Your task to perform on an android device: Go to eBay Image 0: 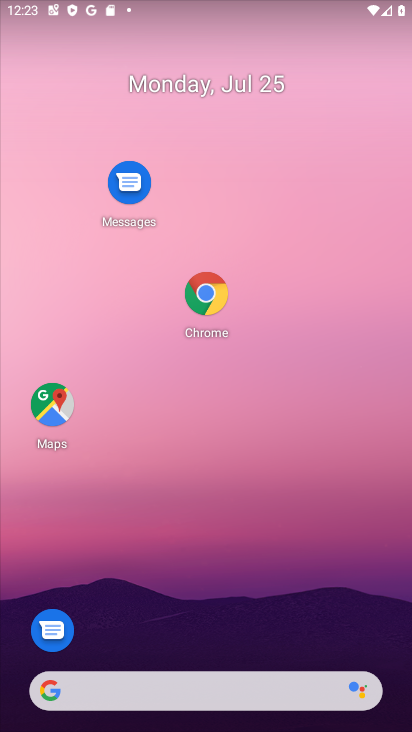
Step 0: press home button
Your task to perform on an android device: Go to eBay Image 1: 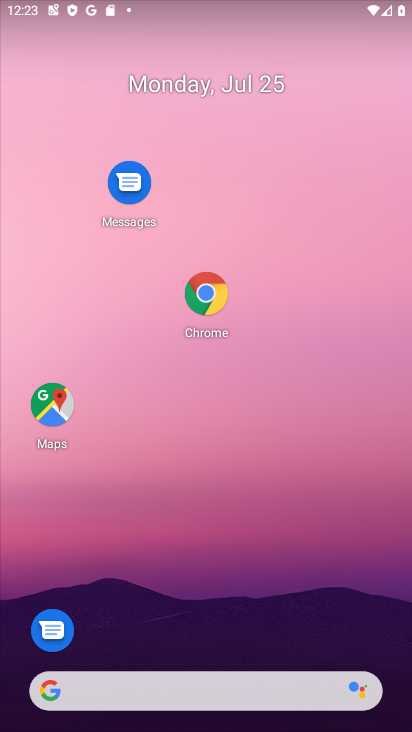
Step 1: drag from (314, 566) to (281, 399)
Your task to perform on an android device: Go to eBay Image 2: 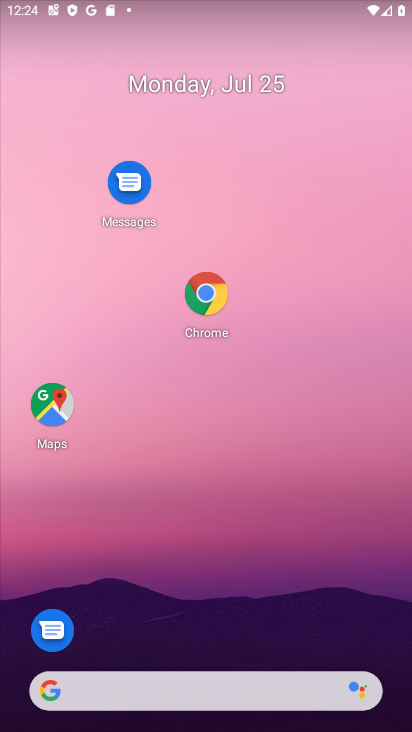
Step 2: click (193, 300)
Your task to perform on an android device: Go to eBay Image 3: 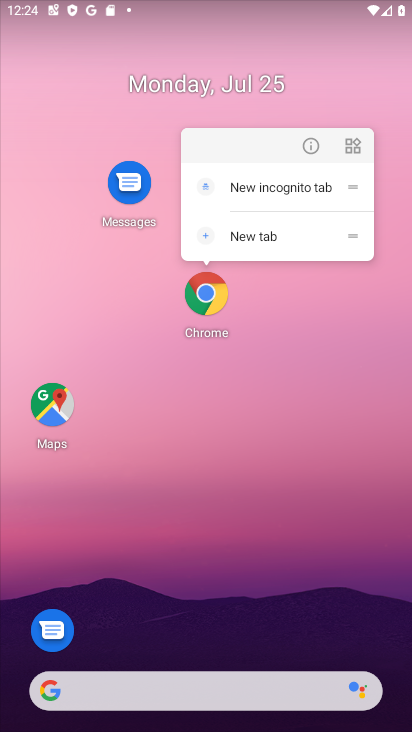
Step 3: click (206, 310)
Your task to perform on an android device: Go to eBay Image 4: 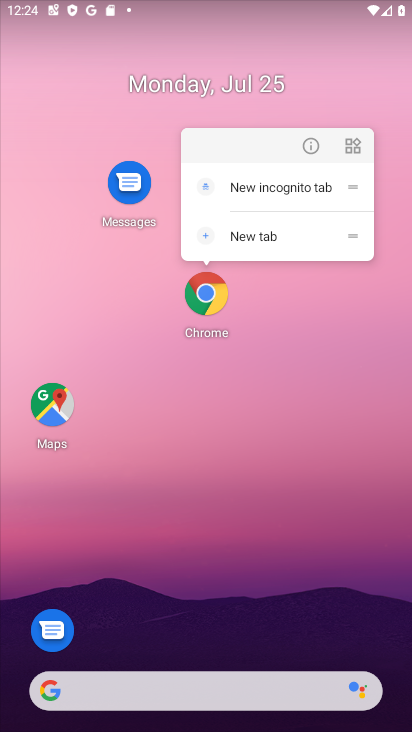
Step 4: click (210, 293)
Your task to perform on an android device: Go to eBay Image 5: 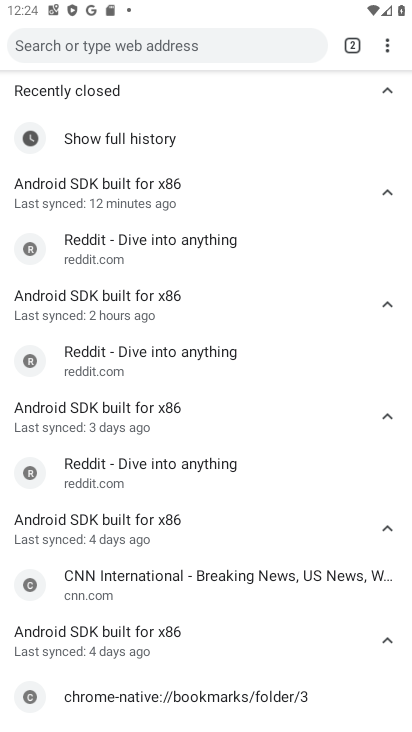
Step 5: click (128, 36)
Your task to perform on an android device: Go to eBay Image 6: 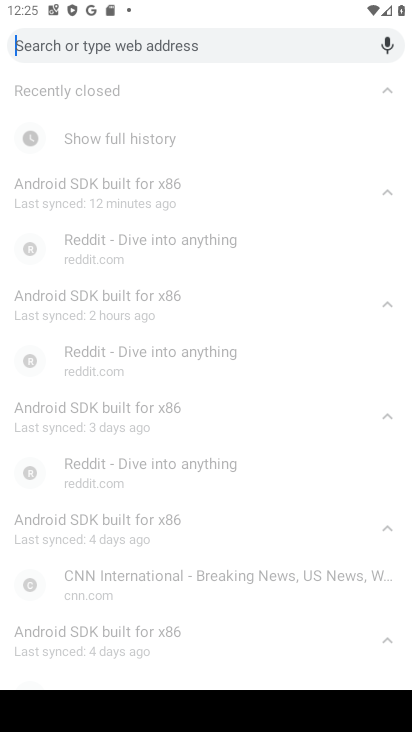
Step 6: type "eBay"
Your task to perform on an android device: Go to eBay Image 7: 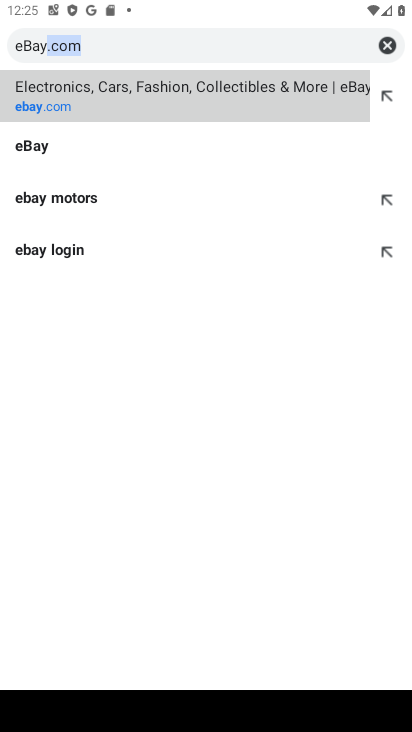
Step 7: click (101, 98)
Your task to perform on an android device: Go to eBay Image 8: 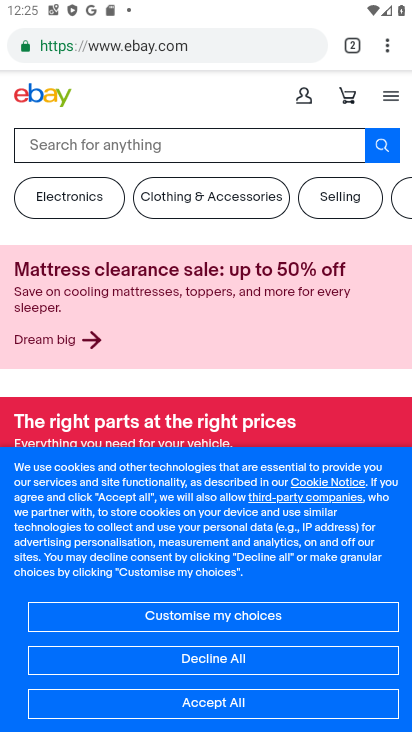
Step 8: task complete